Your task to perform on an android device: turn on showing notifications on the lock screen Image 0: 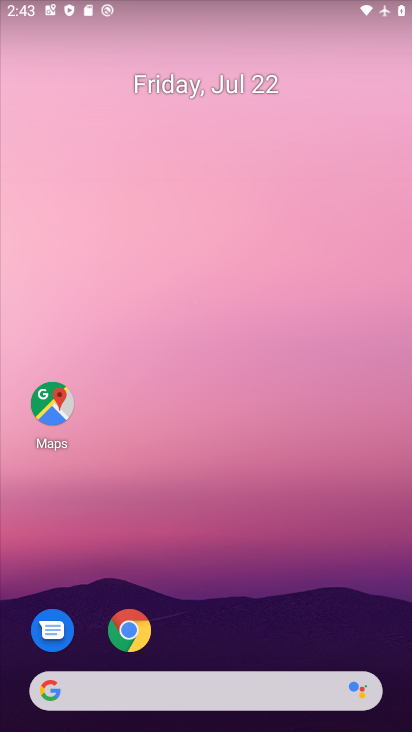
Step 0: drag from (215, 654) to (211, 35)
Your task to perform on an android device: turn on showing notifications on the lock screen Image 1: 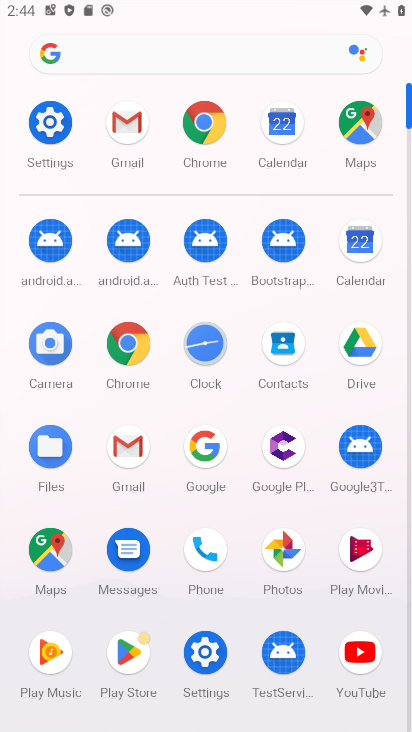
Step 1: click (55, 128)
Your task to perform on an android device: turn on showing notifications on the lock screen Image 2: 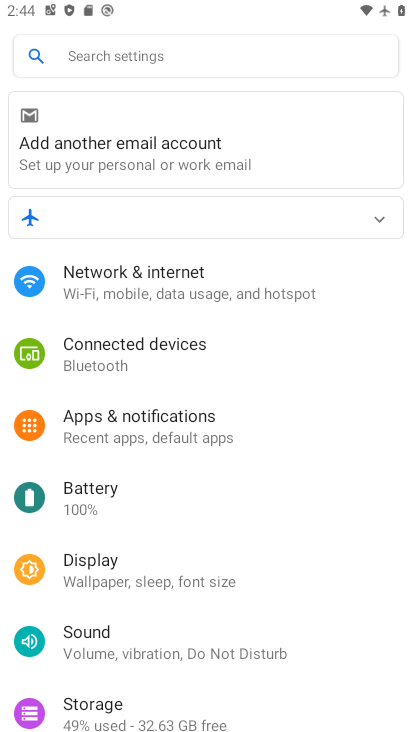
Step 2: click (162, 437)
Your task to perform on an android device: turn on showing notifications on the lock screen Image 3: 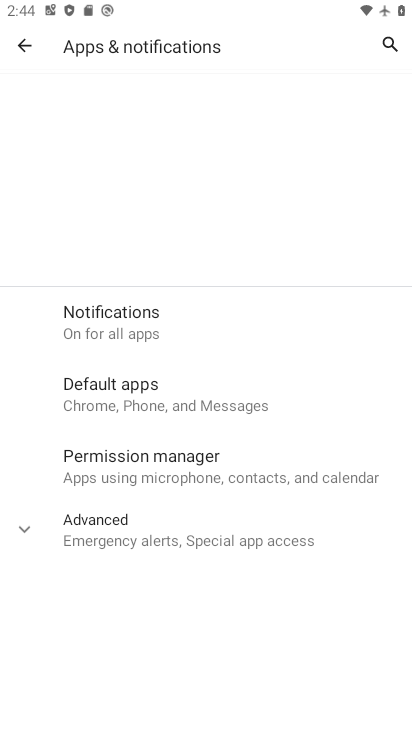
Step 3: click (121, 337)
Your task to perform on an android device: turn on showing notifications on the lock screen Image 4: 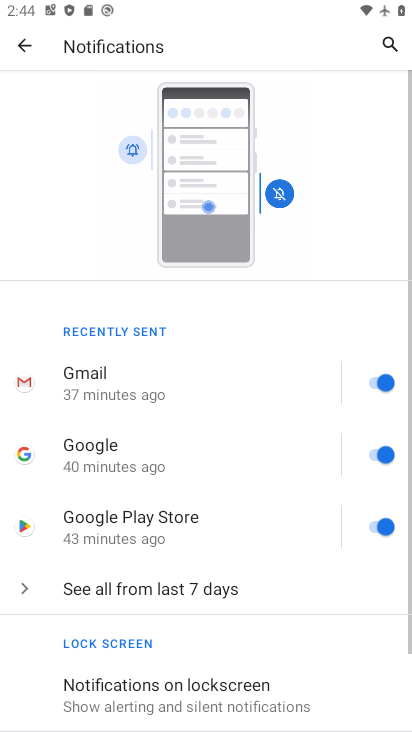
Step 4: click (222, 682)
Your task to perform on an android device: turn on showing notifications on the lock screen Image 5: 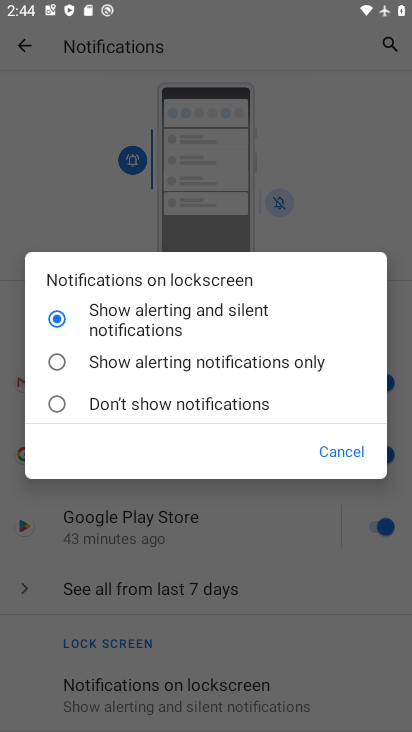
Step 5: click (122, 332)
Your task to perform on an android device: turn on showing notifications on the lock screen Image 6: 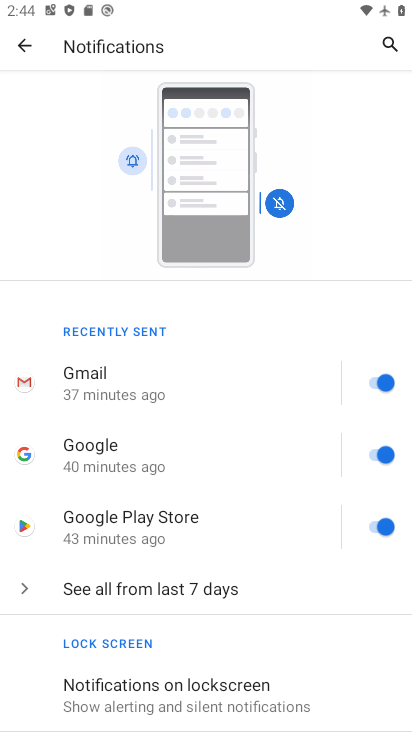
Step 6: task complete